Your task to perform on an android device: add a label to a message in the gmail app Image 0: 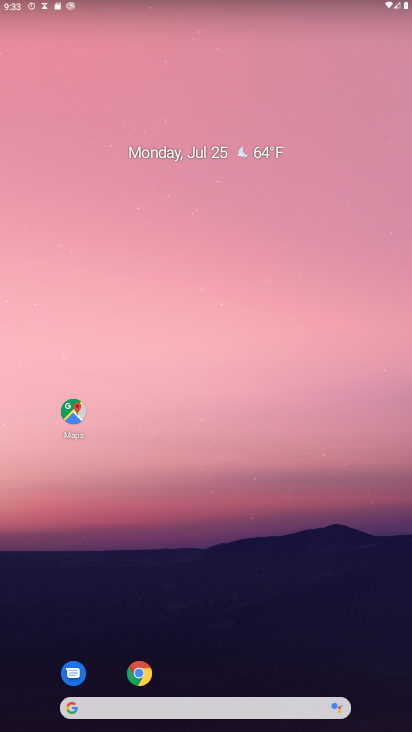
Step 0: press home button
Your task to perform on an android device: add a label to a message in the gmail app Image 1: 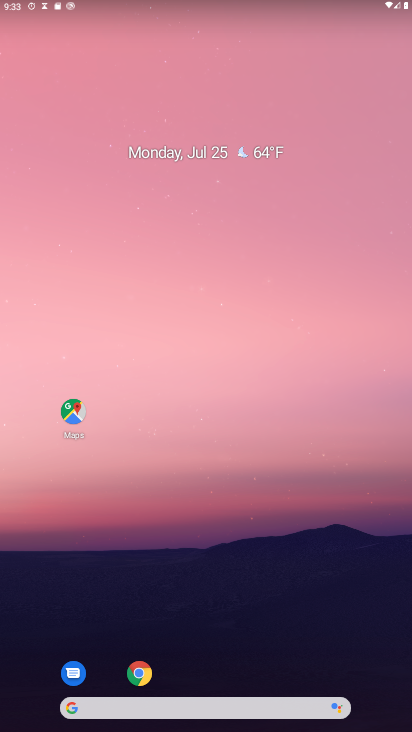
Step 1: drag from (223, 661) to (236, 90)
Your task to perform on an android device: add a label to a message in the gmail app Image 2: 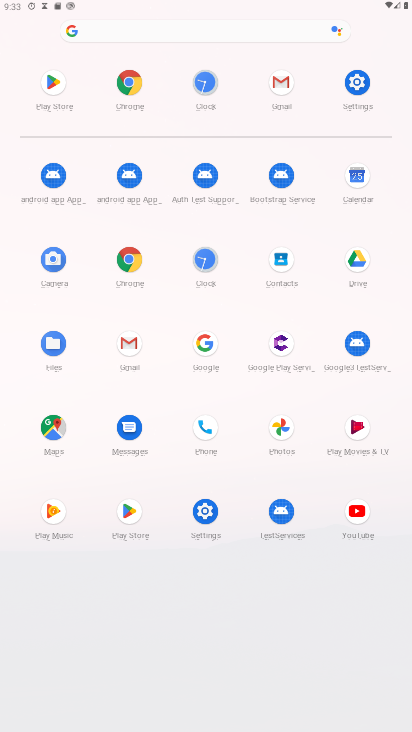
Step 2: click (125, 335)
Your task to perform on an android device: add a label to a message in the gmail app Image 3: 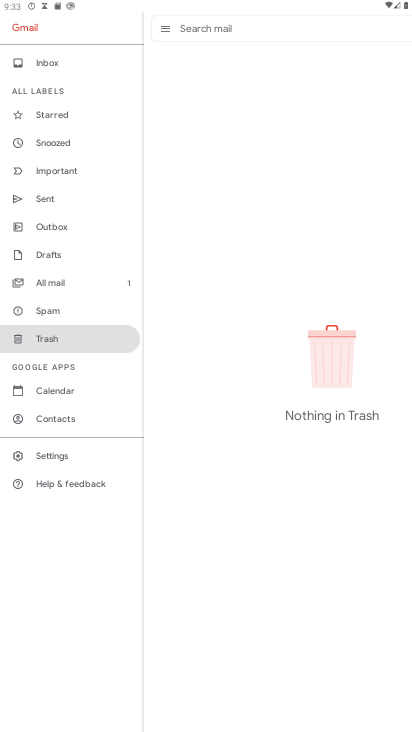
Step 3: click (63, 280)
Your task to perform on an android device: add a label to a message in the gmail app Image 4: 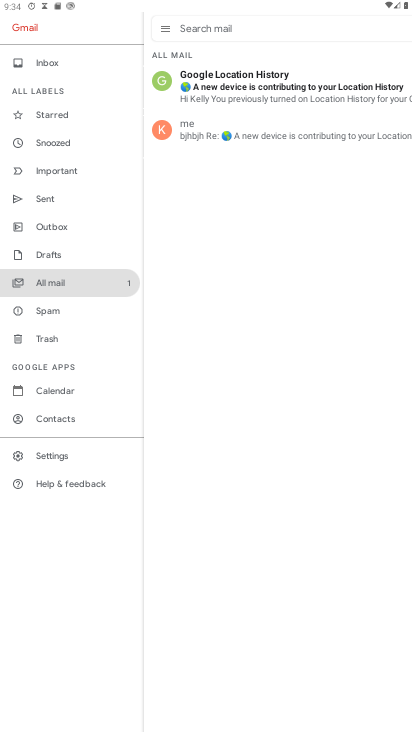
Step 4: click (156, 124)
Your task to perform on an android device: add a label to a message in the gmail app Image 5: 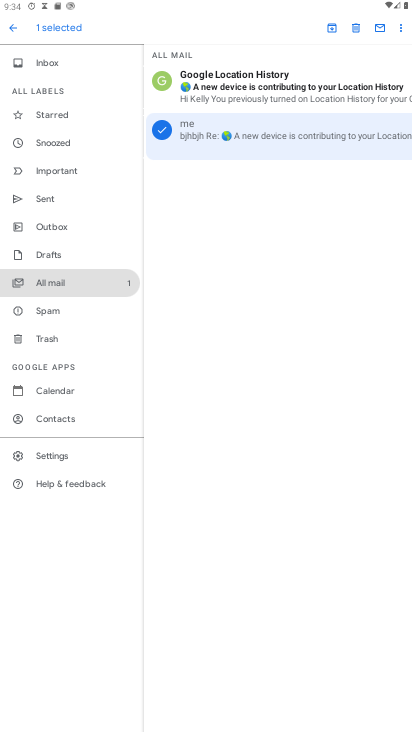
Step 5: click (400, 26)
Your task to perform on an android device: add a label to a message in the gmail app Image 6: 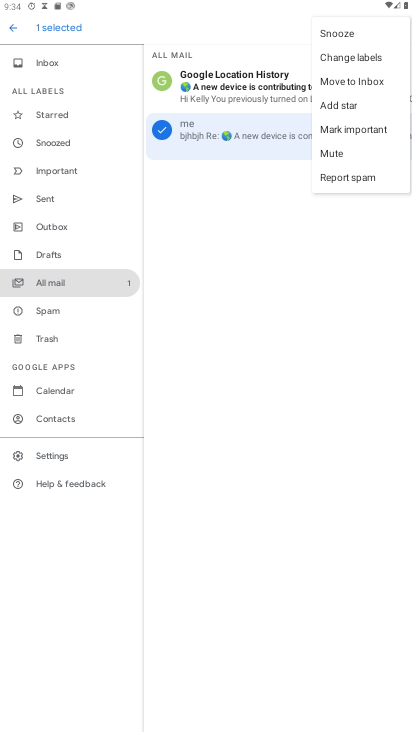
Step 6: click (355, 52)
Your task to perform on an android device: add a label to a message in the gmail app Image 7: 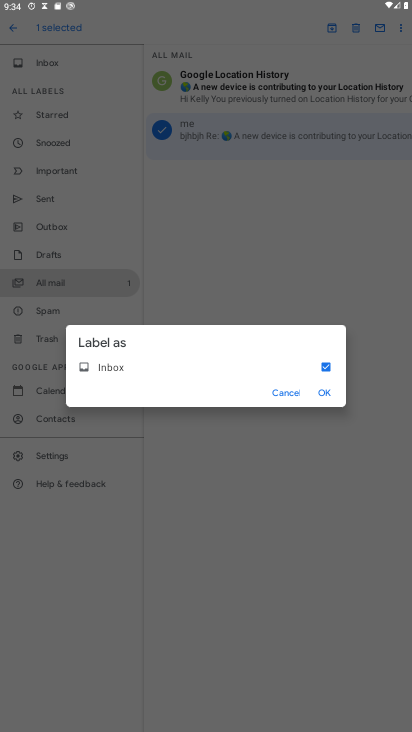
Step 7: click (320, 359)
Your task to perform on an android device: add a label to a message in the gmail app Image 8: 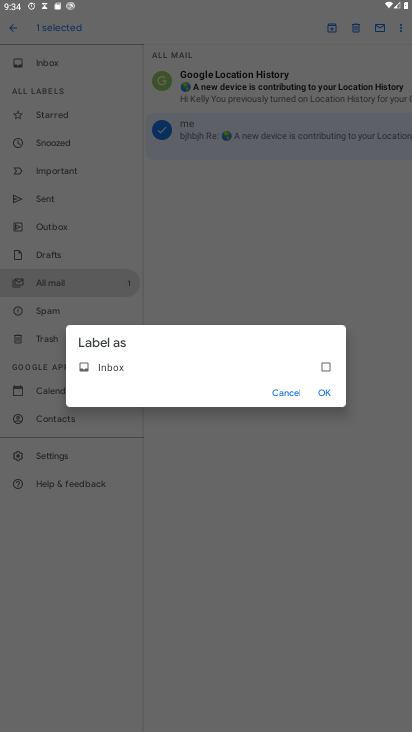
Step 8: click (325, 390)
Your task to perform on an android device: add a label to a message in the gmail app Image 9: 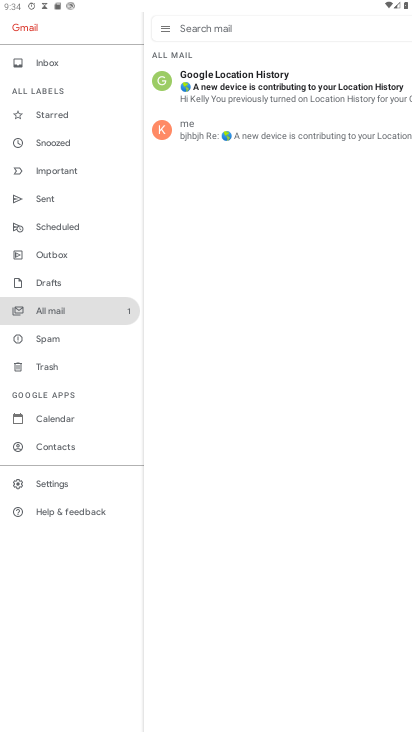
Step 9: task complete